Your task to perform on an android device: turn on notifications settings in the gmail app Image 0: 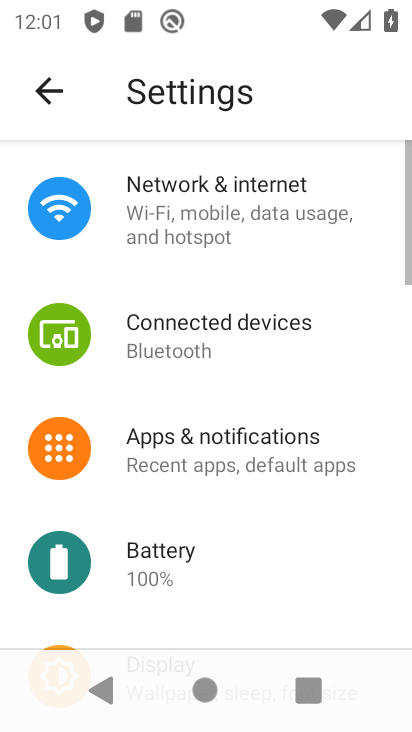
Step 0: press home button
Your task to perform on an android device: turn on notifications settings in the gmail app Image 1: 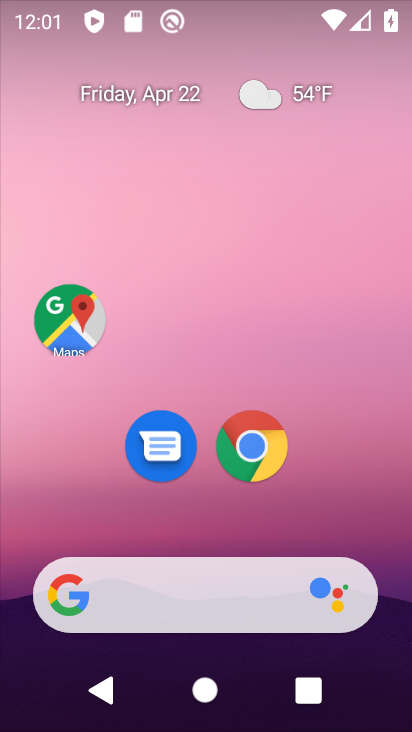
Step 1: drag from (388, 582) to (223, 63)
Your task to perform on an android device: turn on notifications settings in the gmail app Image 2: 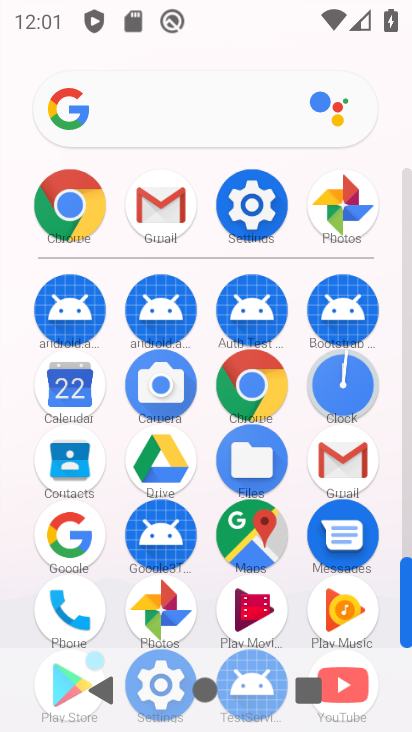
Step 2: click (179, 206)
Your task to perform on an android device: turn on notifications settings in the gmail app Image 3: 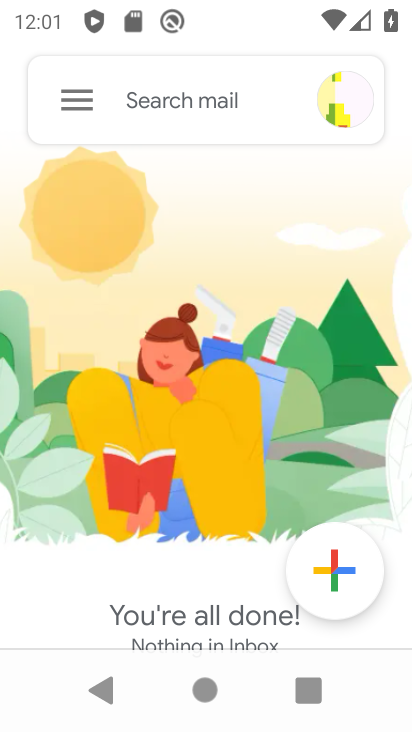
Step 3: click (77, 110)
Your task to perform on an android device: turn on notifications settings in the gmail app Image 4: 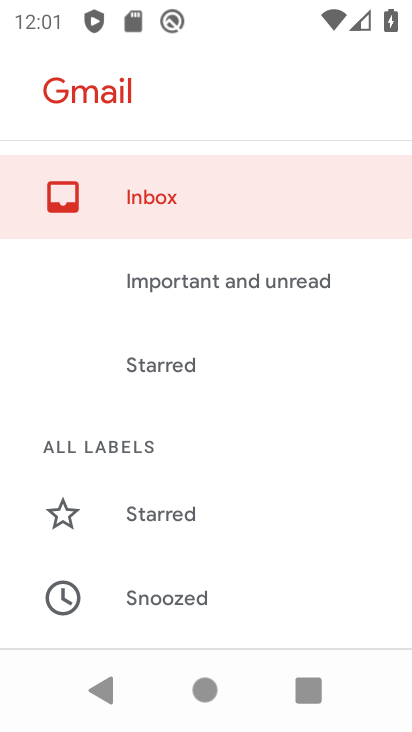
Step 4: drag from (336, 581) to (294, 21)
Your task to perform on an android device: turn on notifications settings in the gmail app Image 5: 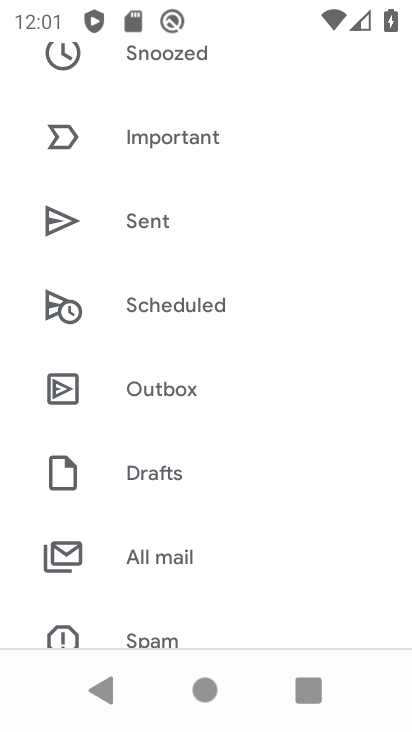
Step 5: drag from (334, 542) to (304, 209)
Your task to perform on an android device: turn on notifications settings in the gmail app Image 6: 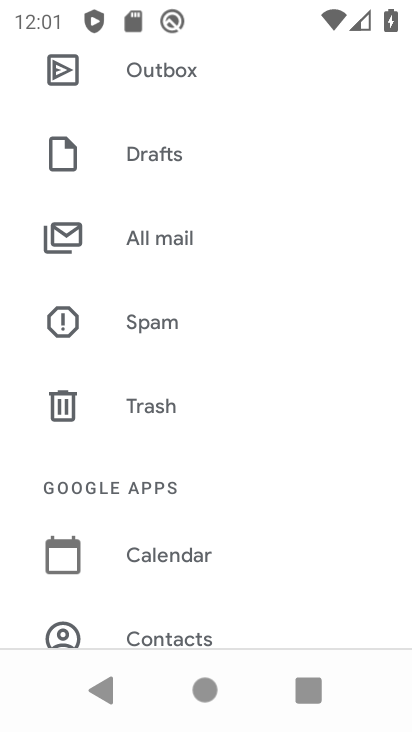
Step 6: drag from (313, 599) to (274, 314)
Your task to perform on an android device: turn on notifications settings in the gmail app Image 7: 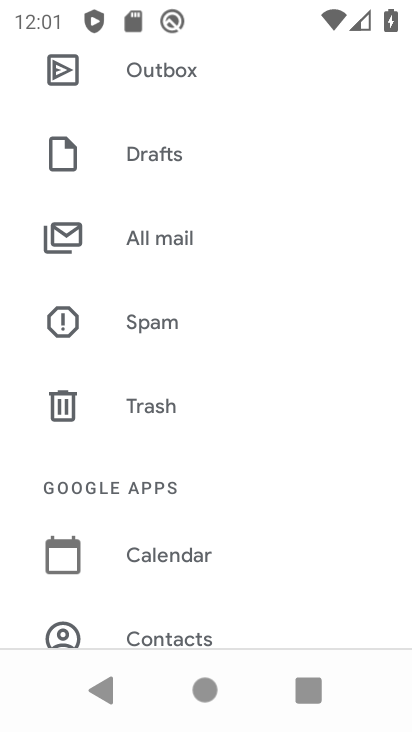
Step 7: drag from (264, 602) to (241, 120)
Your task to perform on an android device: turn on notifications settings in the gmail app Image 8: 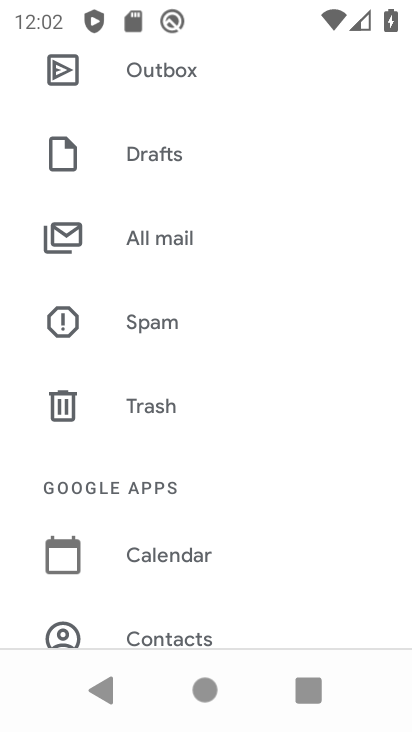
Step 8: drag from (311, 555) to (317, 70)
Your task to perform on an android device: turn on notifications settings in the gmail app Image 9: 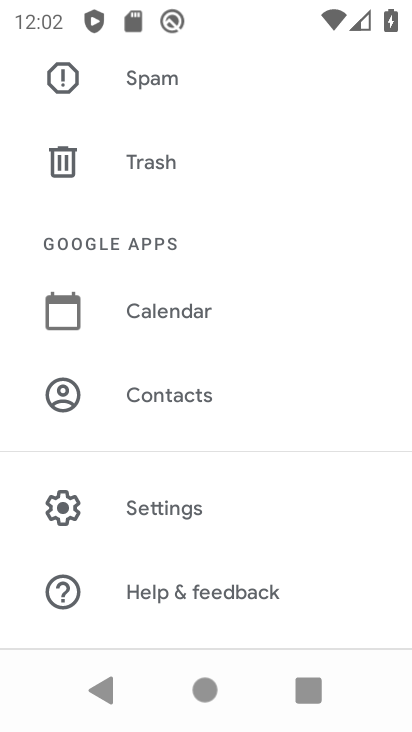
Step 9: click (259, 502)
Your task to perform on an android device: turn on notifications settings in the gmail app Image 10: 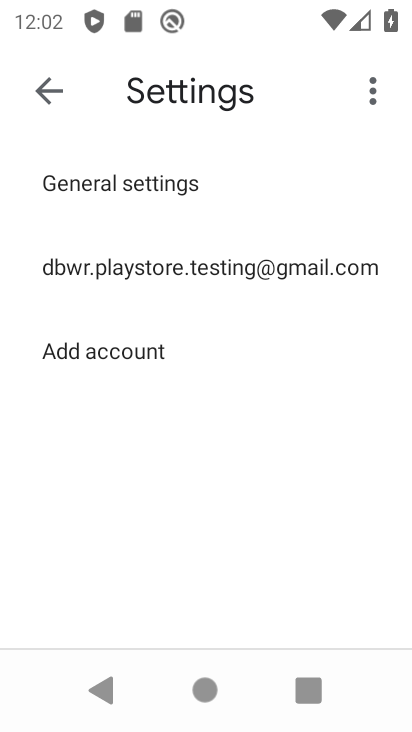
Step 10: click (297, 284)
Your task to perform on an android device: turn on notifications settings in the gmail app Image 11: 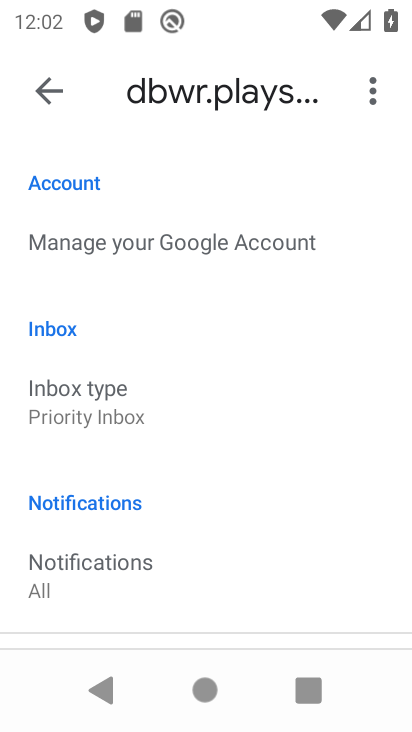
Step 11: drag from (300, 547) to (249, 70)
Your task to perform on an android device: turn on notifications settings in the gmail app Image 12: 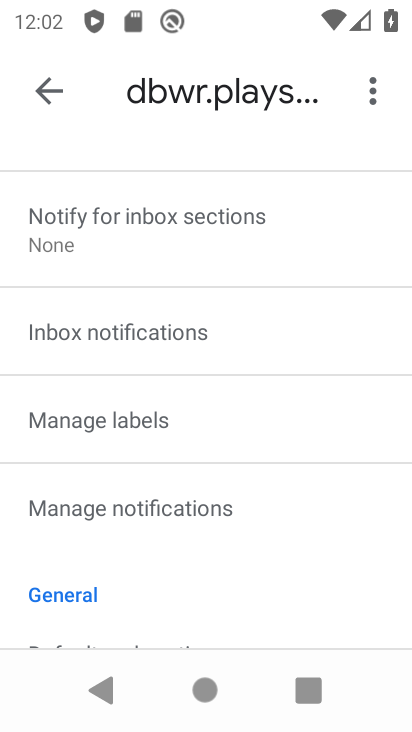
Step 12: click (227, 495)
Your task to perform on an android device: turn on notifications settings in the gmail app Image 13: 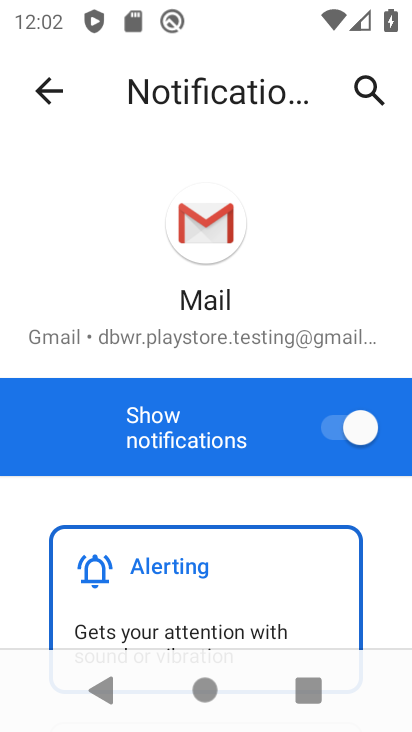
Step 13: drag from (302, 639) to (289, 230)
Your task to perform on an android device: turn on notifications settings in the gmail app Image 14: 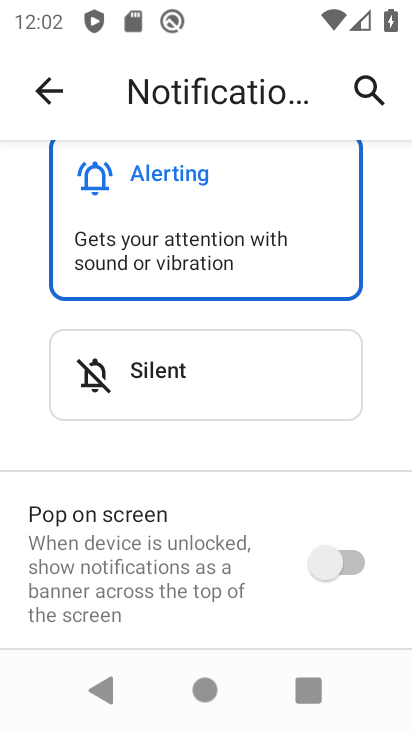
Step 14: click (342, 549)
Your task to perform on an android device: turn on notifications settings in the gmail app Image 15: 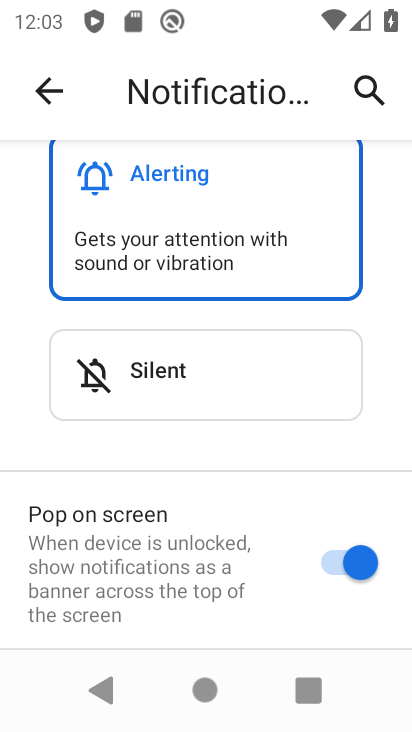
Step 15: task complete